Your task to perform on an android device: Open Reddit.com Image 0: 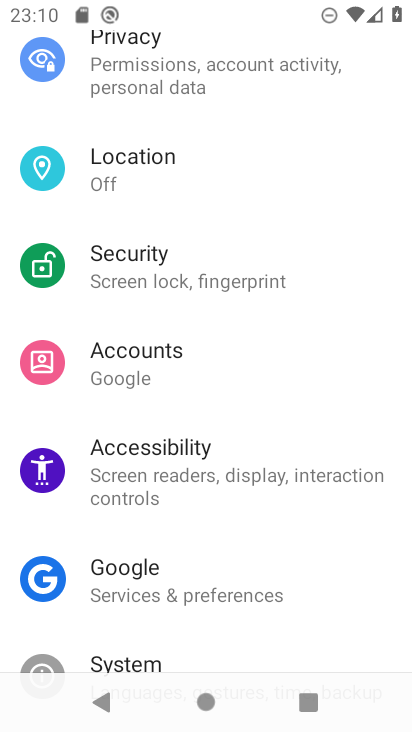
Step 0: press home button
Your task to perform on an android device: Open Reddit.com Image 1: 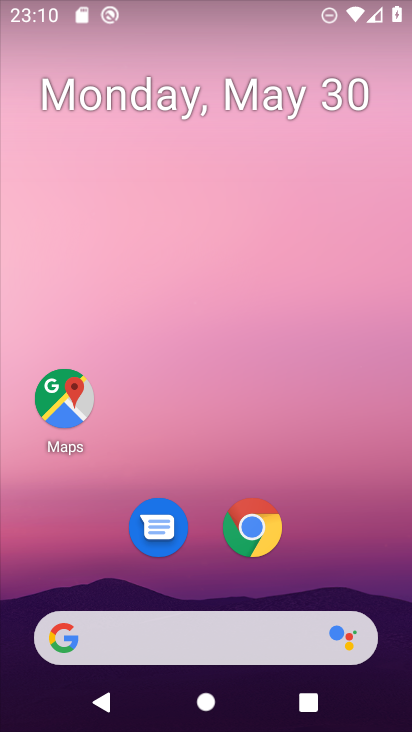
Step 1: click (259, 516)
Your task to perform on an android device: Open Reddit.com Image 2: 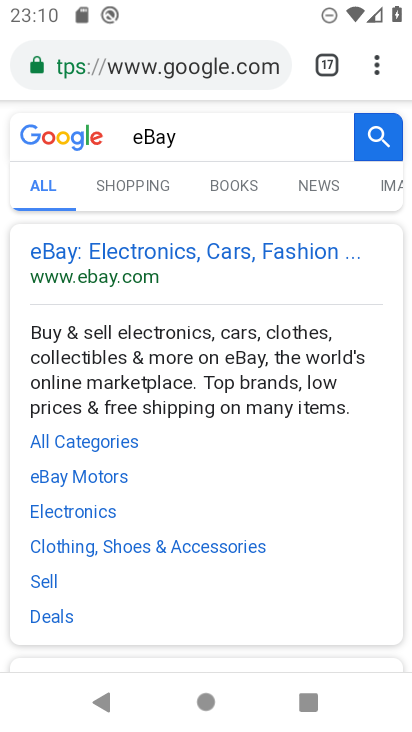
Step 2: click (373, 59)
Your task to perform on an android device: Open Reddit.com Image 3: 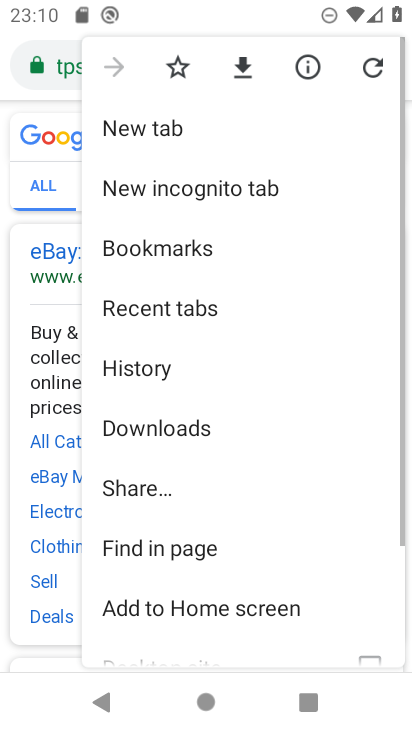
Step 3: click (182, 128)
Your task to perform on an android device: Open Reddit.com Image 4: 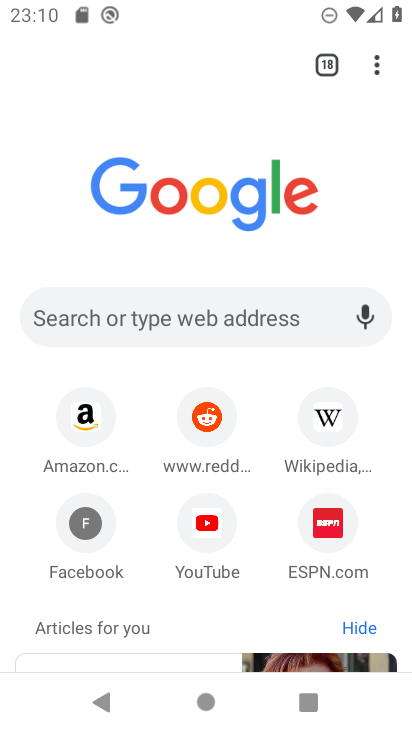
Step 4: click (154, 318)
Your task to perform on an android device: Open Reddit.com Image 5: 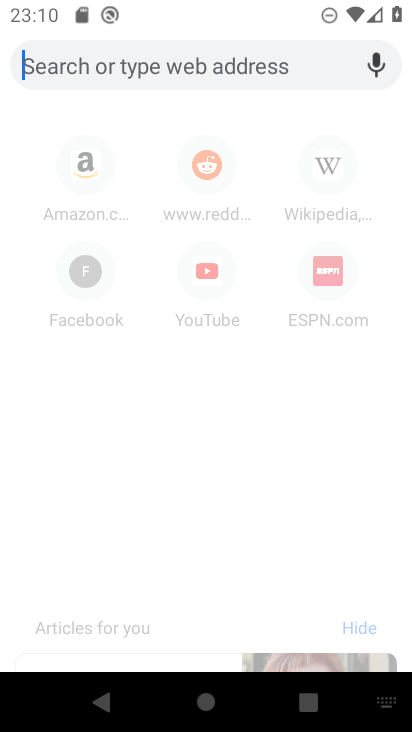
Step 5: type " Reddit.com"
Your task to perform on an android device: Open Reddit.com Image 6: 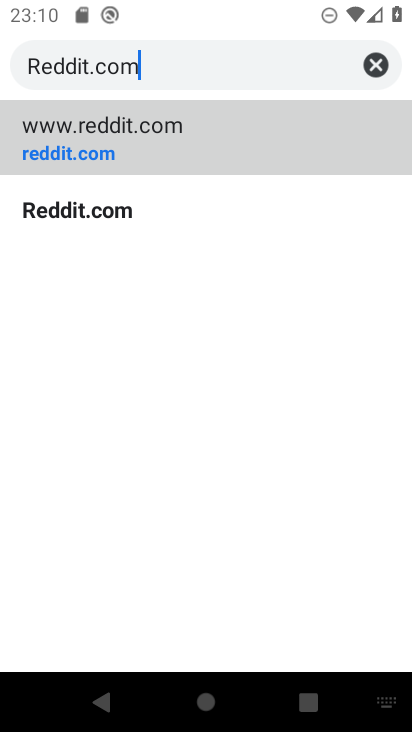
Step 6: click (118, 121)
Your task to perform on an android device: Open Reddit.com Image 7: 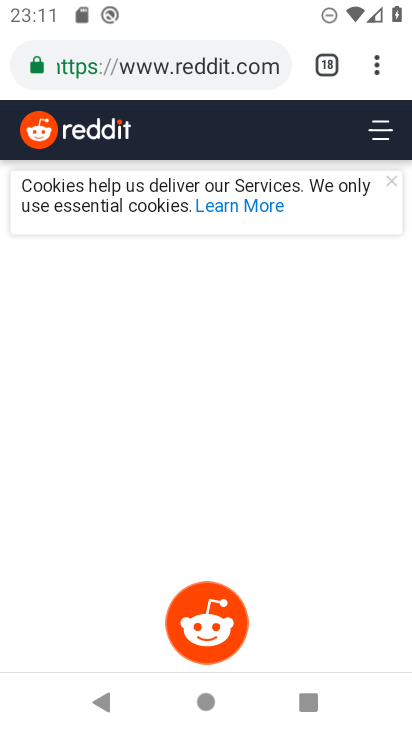
Step 7: task complete